Your task to perform on an android device: allow notifications from all sites in the chrome app Image 0: 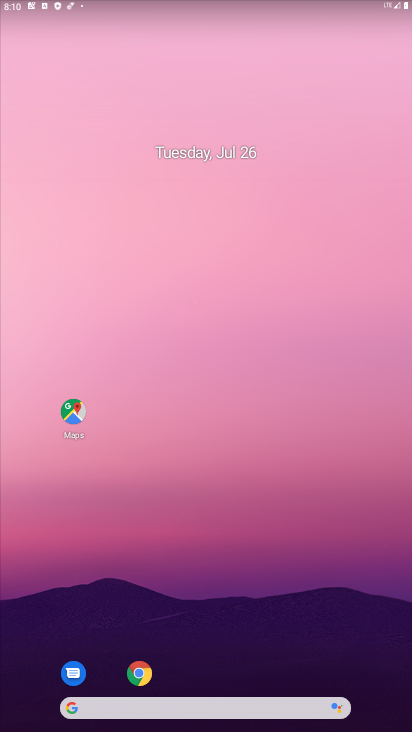
Step 0: click (140, 679)
Your task to perform on an android device: allow notifications from all sites in the chrome app Image 1: 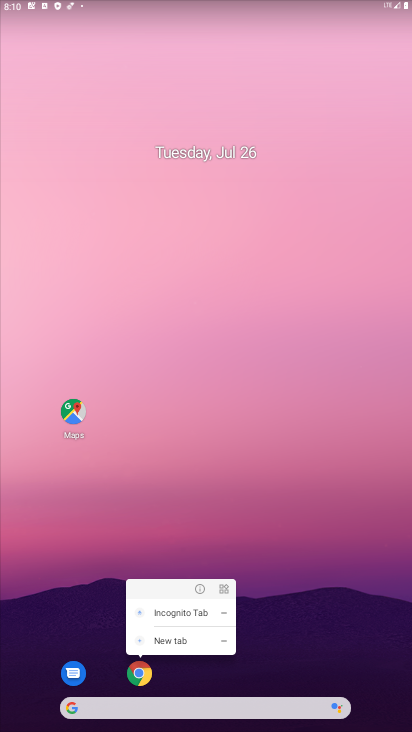
Step 1: click (148, 676)
Your task to perform on an android device: allow notifications from all sites in the chrome app Image 2: 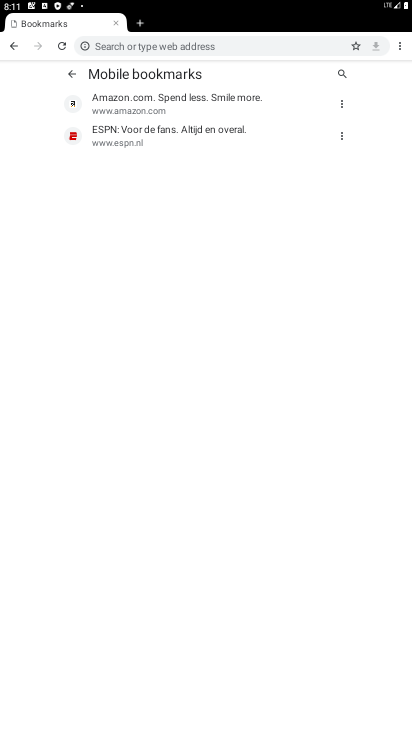
Step 2: click (140, 21)
Your task to perform on an android device: allow notifications from all sites in the chrome app Image 3: 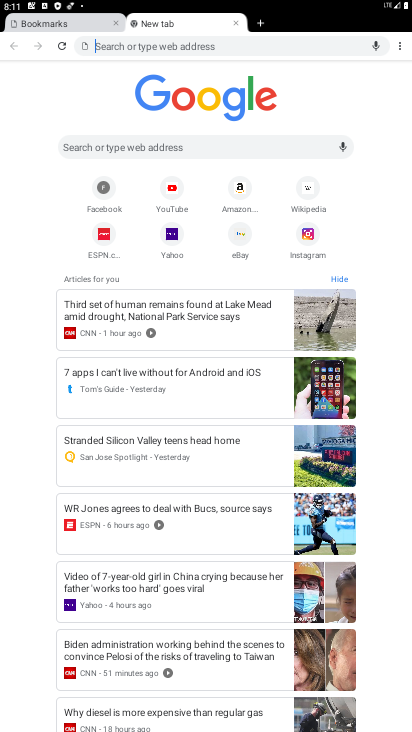
Step 3: click (398, 48)
Your task to perform on an android device: allow notifications from all sites in the chrome app Image 4: 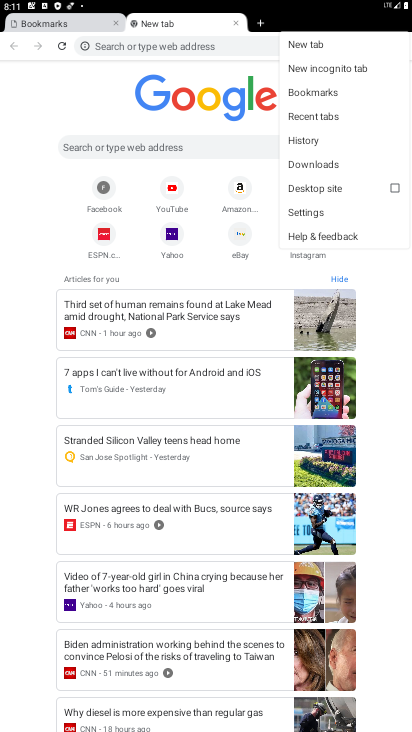
Step 4: click (310, 210)
Your task to perform on an android device: allow notifications from all sites in the chrome app Image 5: 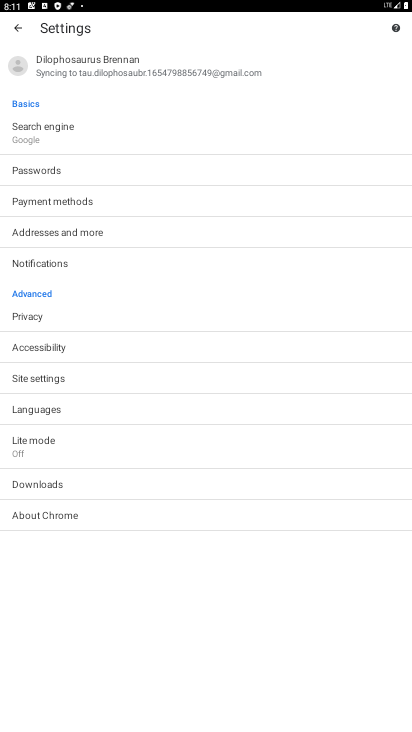
Step 5: click (42, 373)
Your task to perform on an android device: allow notifications from all sites in the chrome app Image 6: 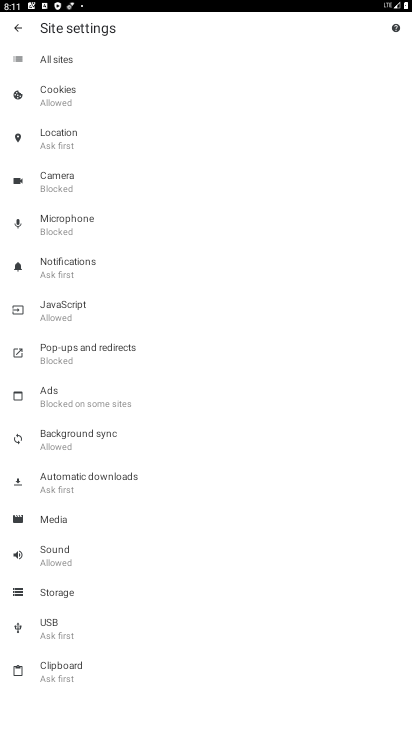
Step 6: click (73, 61)
Your task to perform on an android device: allow notifications from all sites in the chrome app Image 7: 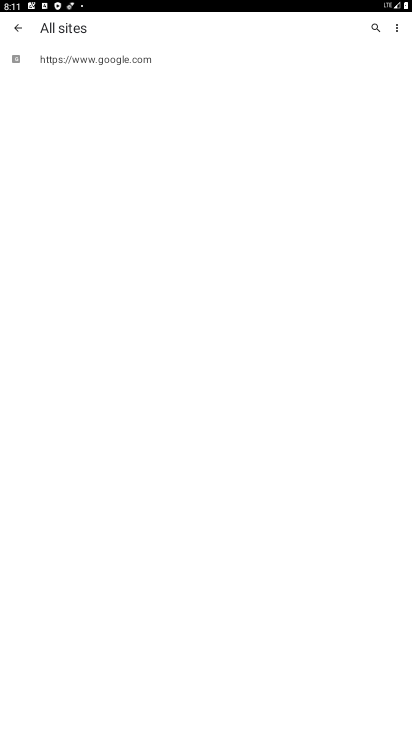
Step 7: click (88, 52)
Your task to perform on an android device: allow notifications from all sites in the chrome app Image 8: 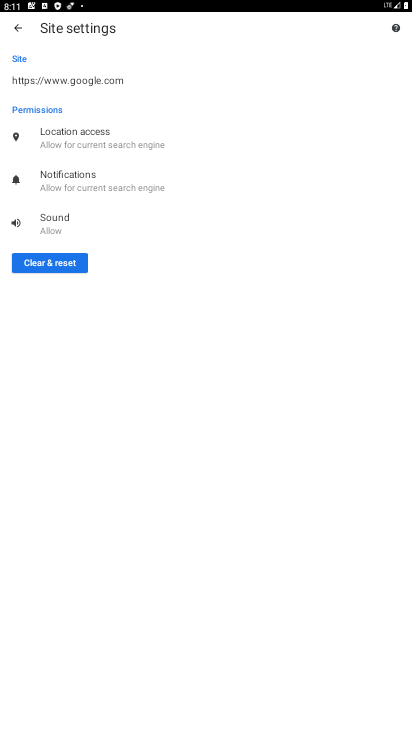
Step 8: click (84, 186)
Your task to perform on an android device: allow notifications from all sites in the chrome app Image 9: 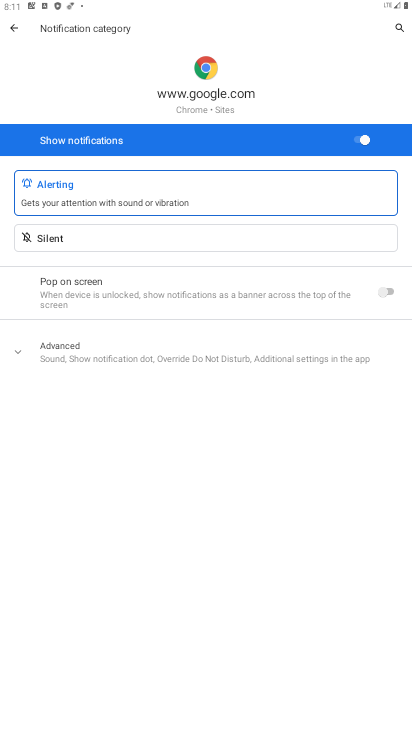
Step 9: click (353, 137)
Your task to perform on an android device: allow notifications from all sites in the chrome app Image 10: 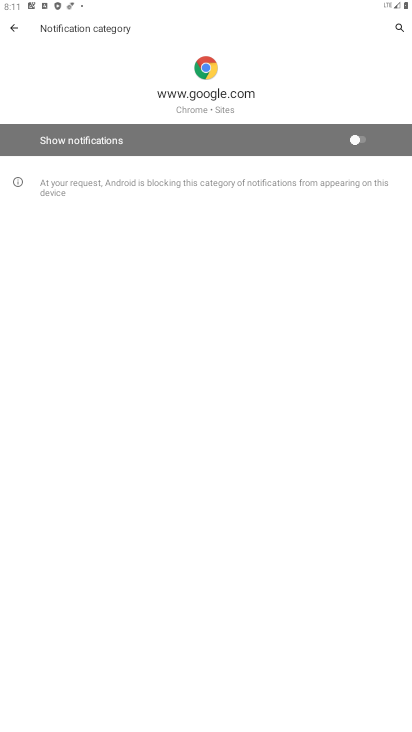
Step 10: click (370, 141)
Your task to perform on an android device: allow notifications from all sites in the chrome app Image 11: 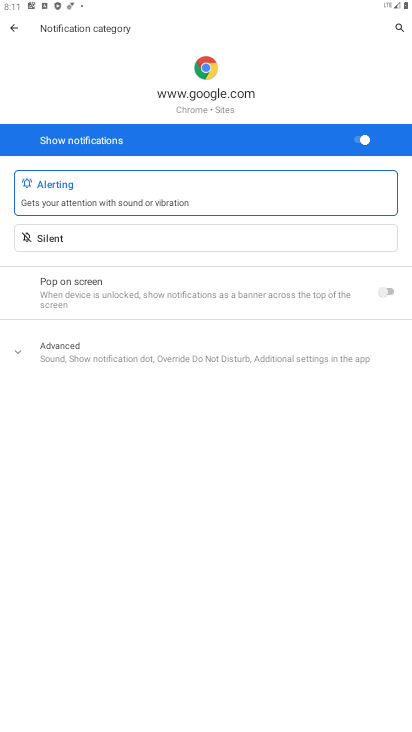
Step 11: task complete